Your task to perform on an android device: check android version Image 0: 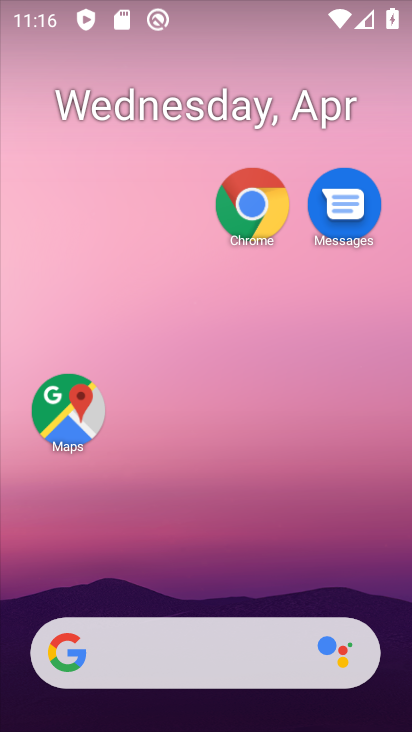
Step 0: drag from (200, 611) to (152, 12)
Your task to perform on an android device: check android version Image 1: 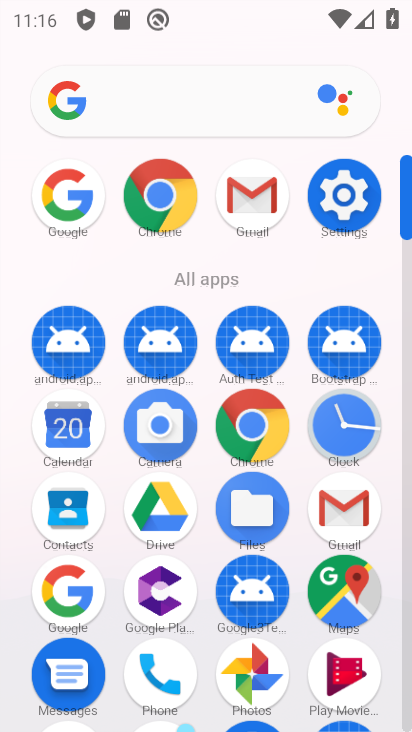
Step 1: click (333, 198)
Your task to perform on an android device: check android version Image 2: 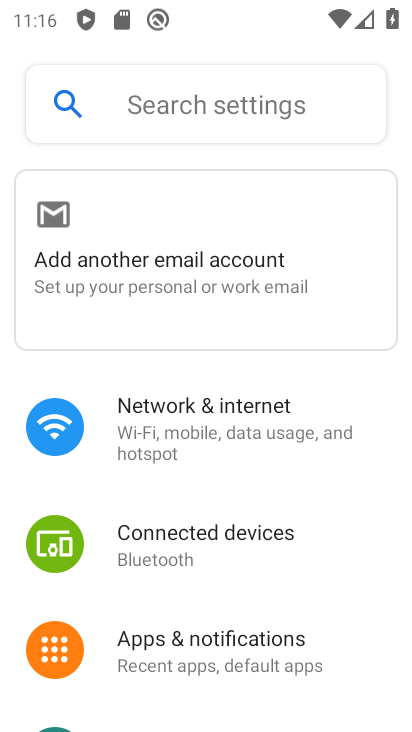
Step 2: drag from (332, 607) to (275, 32)
Your task to perform on an android device: check android version Image 3: 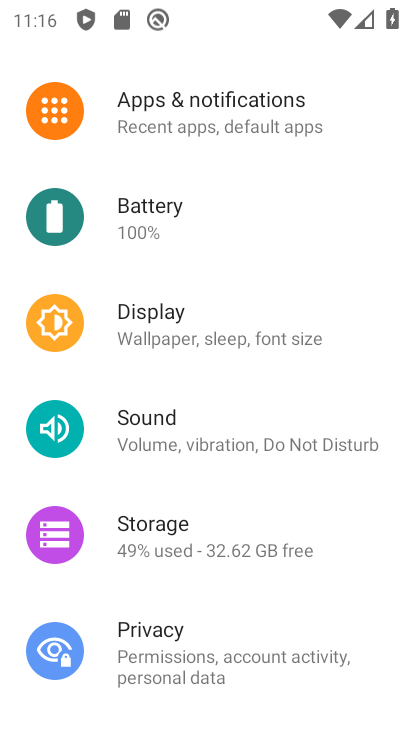
Step 3: drag from (219, 550) to (204, 83)
Your task to perform on an android device: check android version Image 4: 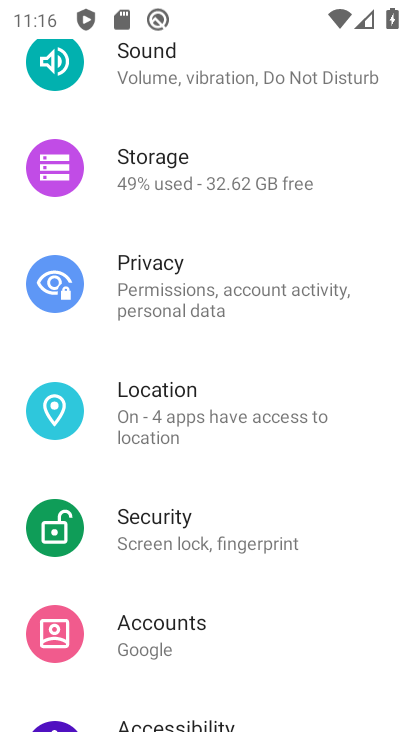
Step 4: drag from (187, 628) to (171, 85)
Your task to perform on an android device: check android version Image 5: 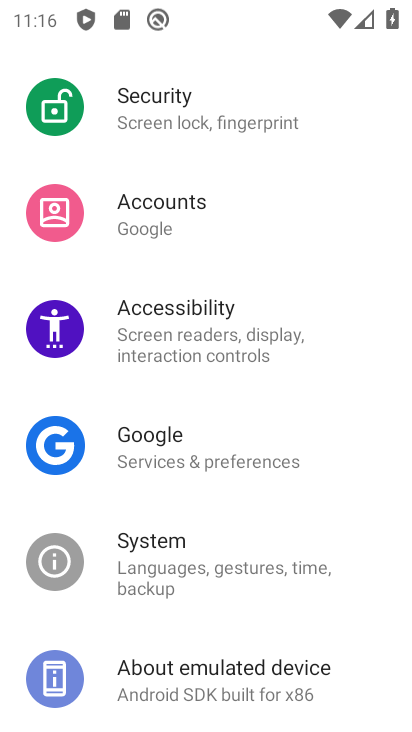
Step 5: click (166, 659)
Your task to perform on an android device: check android version Image 6: 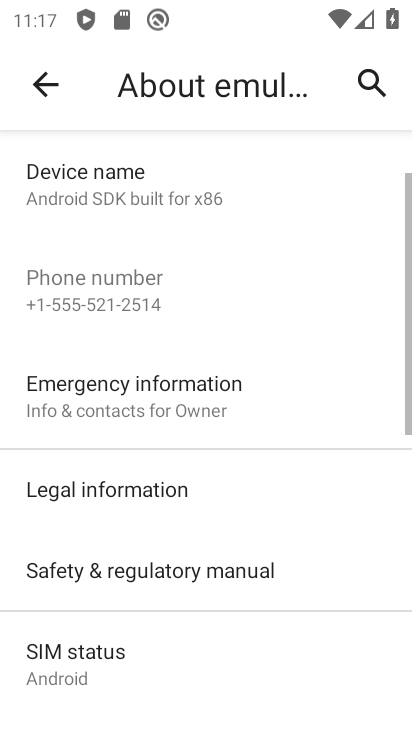
Step 6: drag from (158, 482) to (152, 115)
Your task to perform on an android device: check android version Image 7: 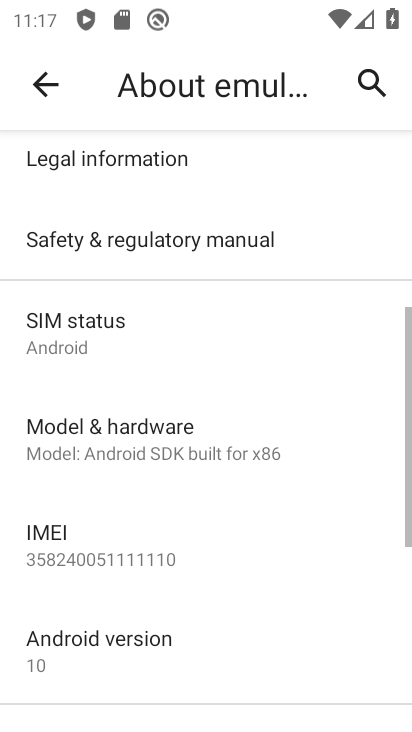
Step 7: click (136, 632)
Your task to perform on an android device: check android version Image 8: 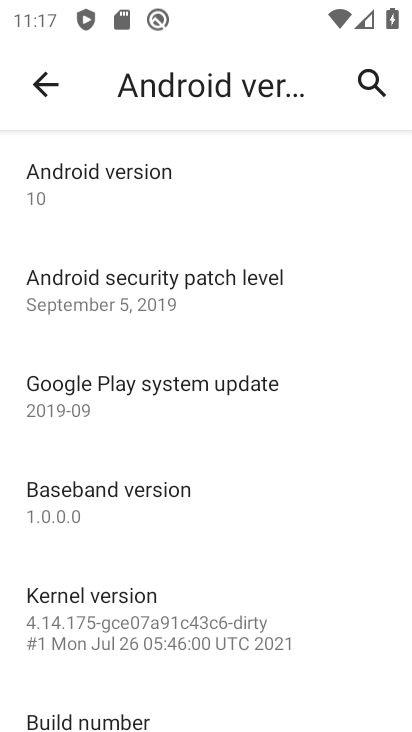
Step 8: task complete